Your task to perform on an android device: set the timer Image 0: 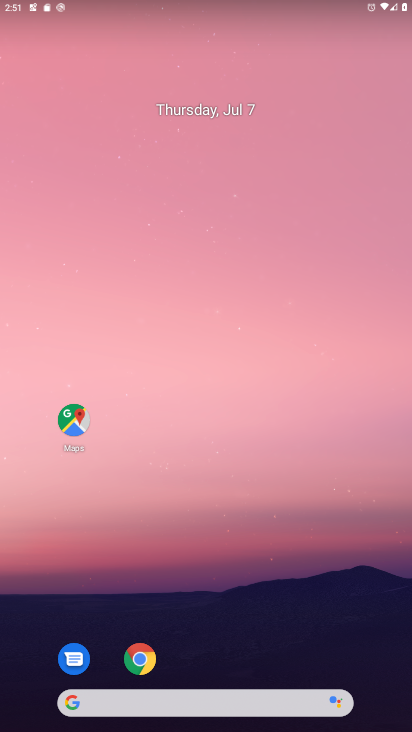
Step 0: drag from (240, 586) to (291, 127)
Your task to perform on an android device: set the timer Image 1: 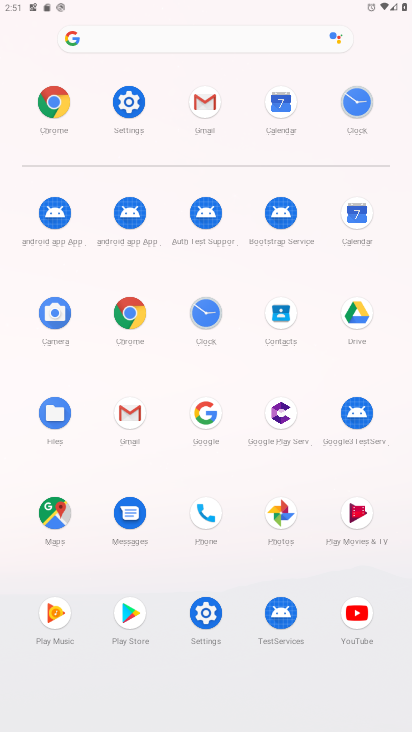
Step 1: click (214, 309)
Your task to perform on an android device: set the timer Image 2: 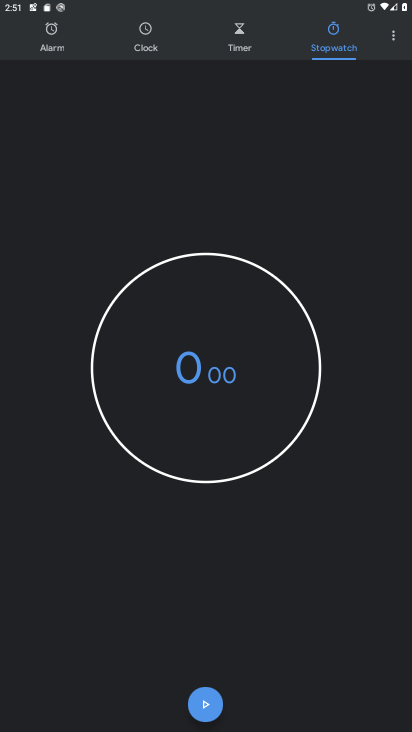
Step 2: drag from (334, 538) to (403, 0)
Your task to perform on an android device: set the timer Image 3: 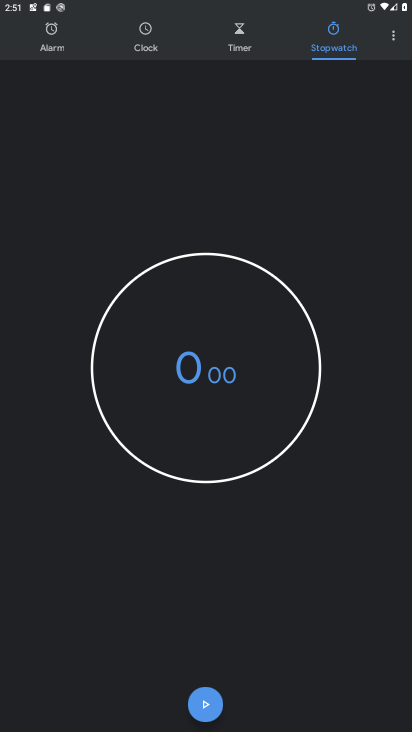
Step 3: click (221, 46)
Your task to perform on an android device: set the timer Image 4: 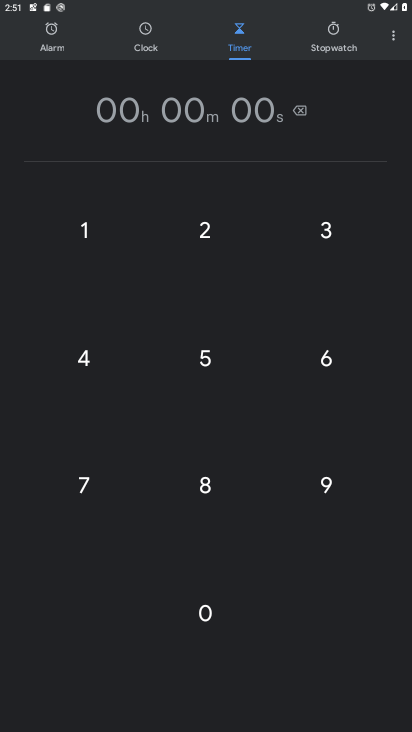
Step 4: click (199, 498)
Your task to perform on an android device: set the timer Image 5: 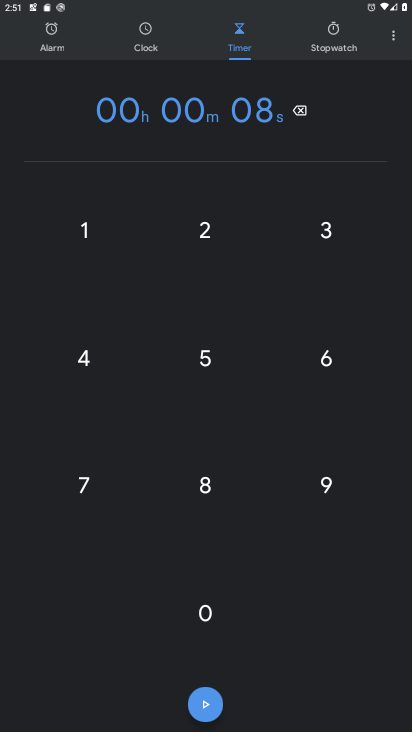
Step 5: click (319, 336)
Your task to perform on an android device: set the timer Image 6: 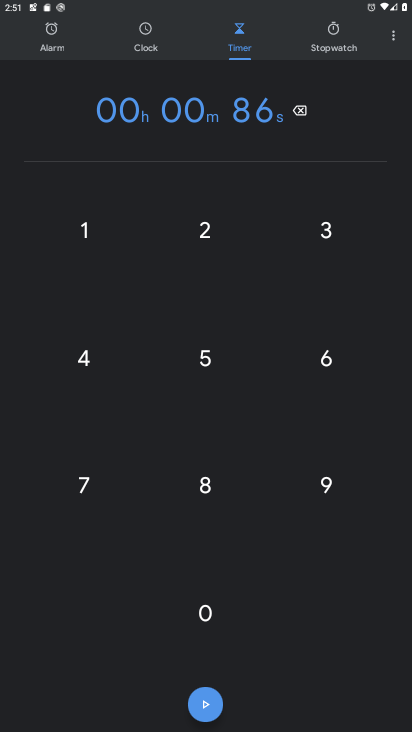
Step 6: click (203, 695)
Your task to perform on an android device: set the timer Image 7: 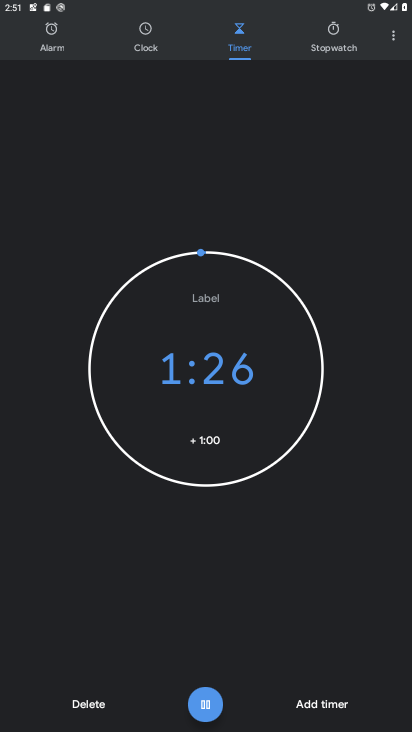
Step 7: task complete